Your task to perform on an android device: remove spam from my inbox in the gmail app Image 0: 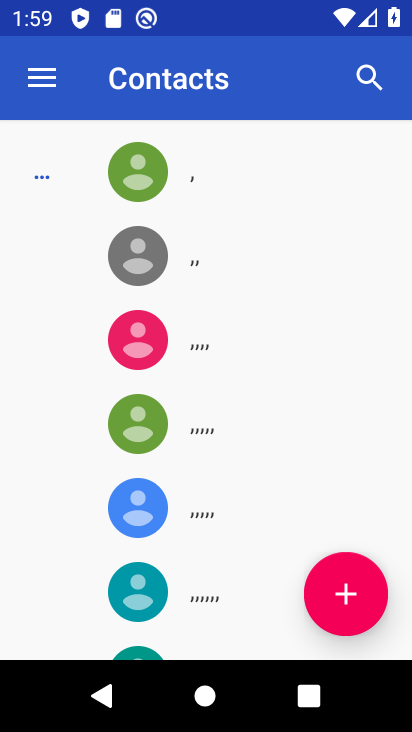
Step 0: press home button
Your task to perform on an android device: remove spam from my inbox in the gmail app Image 1: 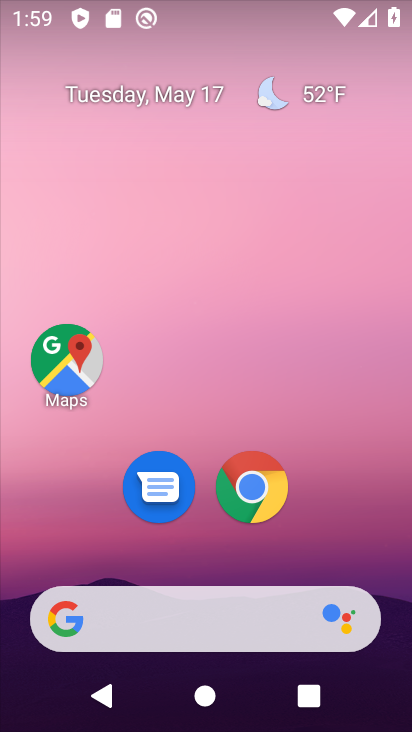
Step 1: drag from (403, 643) to (401, 182)
Your task to perform on an android device: remove spam from my inbox in the gmail app Image 2: 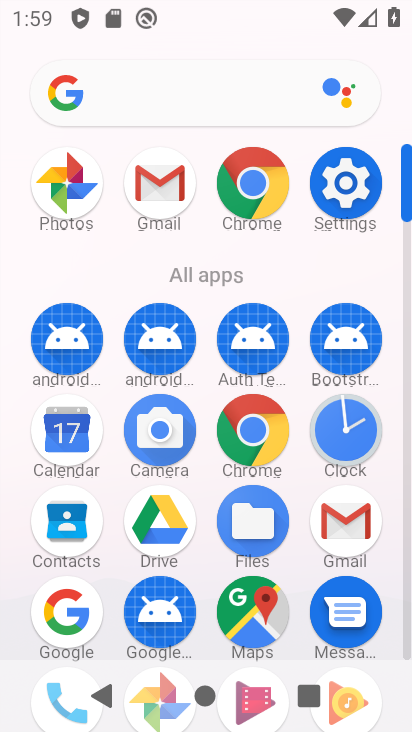
Step 2: click (344, 510)
Your task to perform on an android device: remove spam from my inbox in the gmail app Image 3: 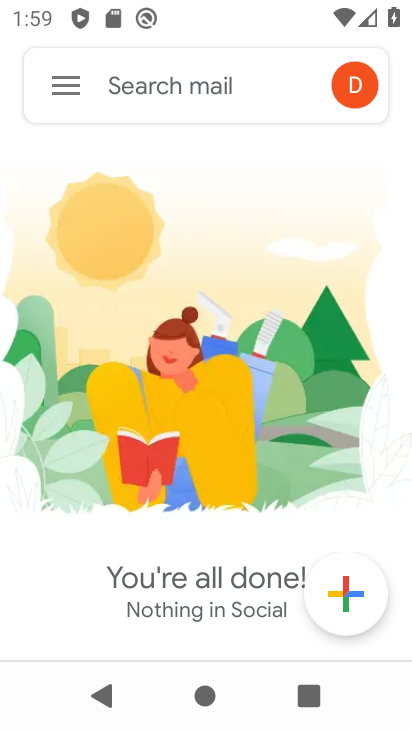
Step 3: click (72, 74)
Your task to perform on an android device: remove spam from my inbox in the gmail app Image 4: 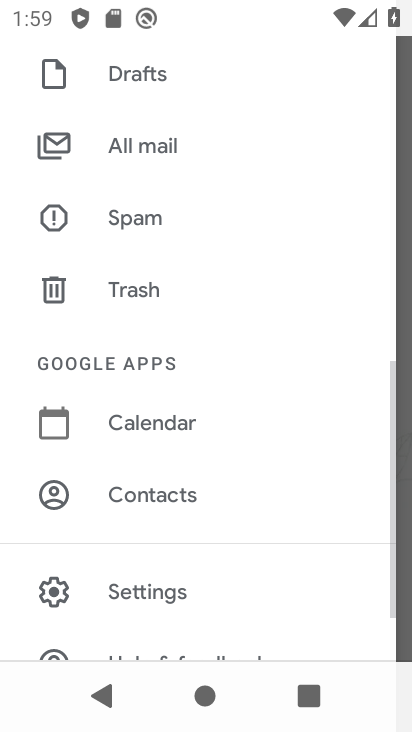
Step 4: click (130, 216)
Your task to perform on an android device: remove spam from my inbox in the gmail app Image 5: 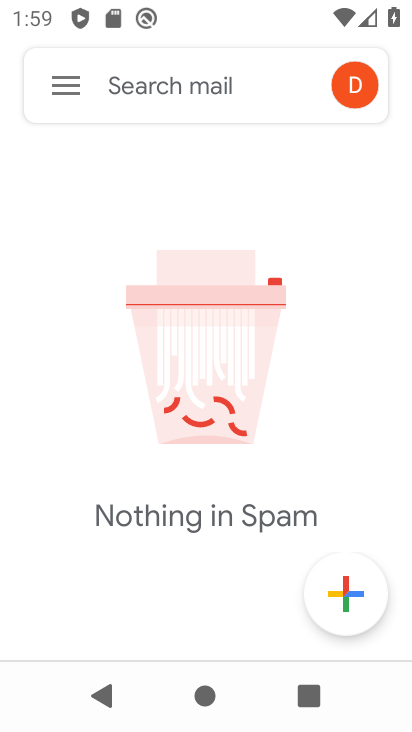
Step 5: task complete